Your task to perform on an android device: move a message to another label in the gmail app Image 0: 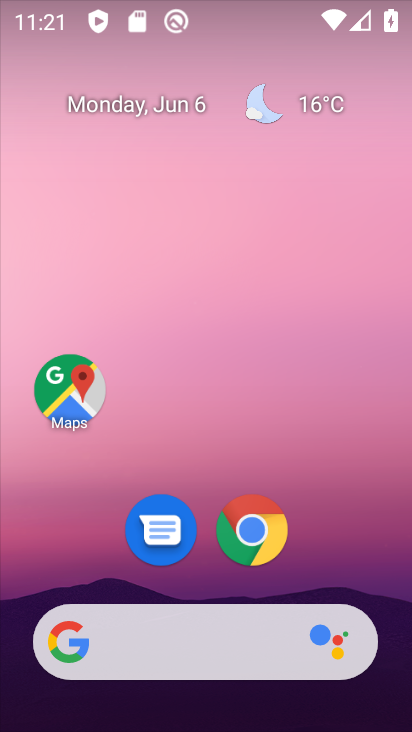
Step 0: drag from (318, 320) to (250, 49)
Your task to perform on an android device: move a message to another label in the gmail app Image 1: 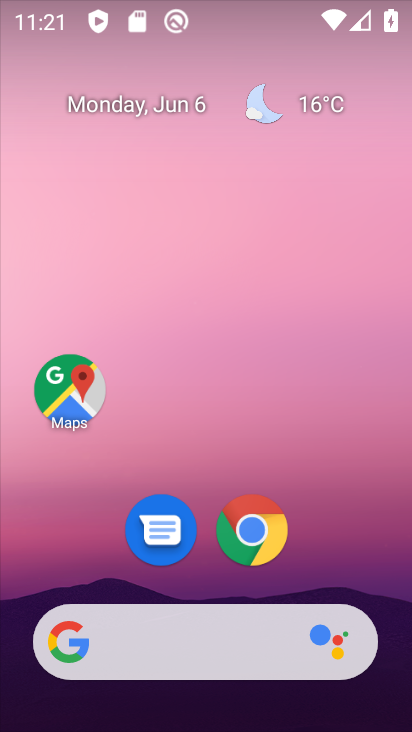
Step 1: drag from (316, 397) to (233, 16)
Your task to perform on an android device: move a message to another label in the gmail app Image 2: 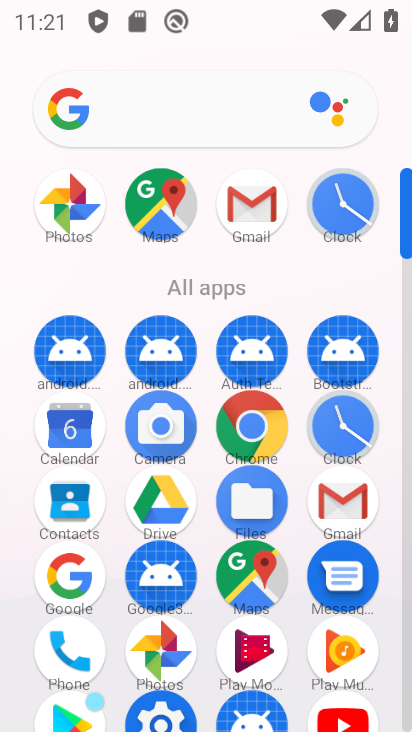
Step 2: click (262, 208)
Your task to perform on an android device: move a message to another label in the gmail app Image 3: 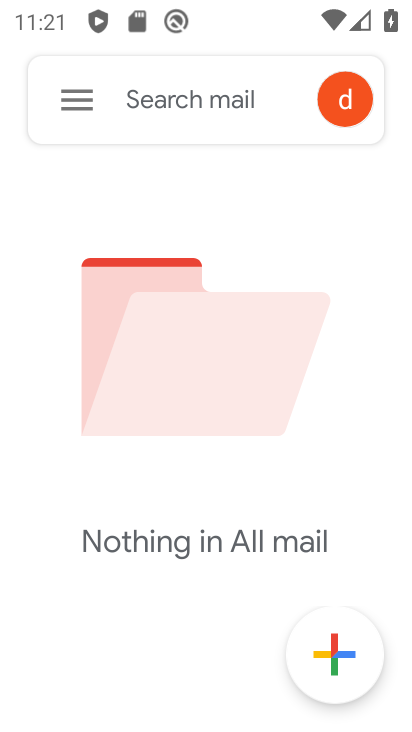
Step 3: click (78, 101)
Your task to perform on an android device: move a message to another label in the gmail app Image 4: 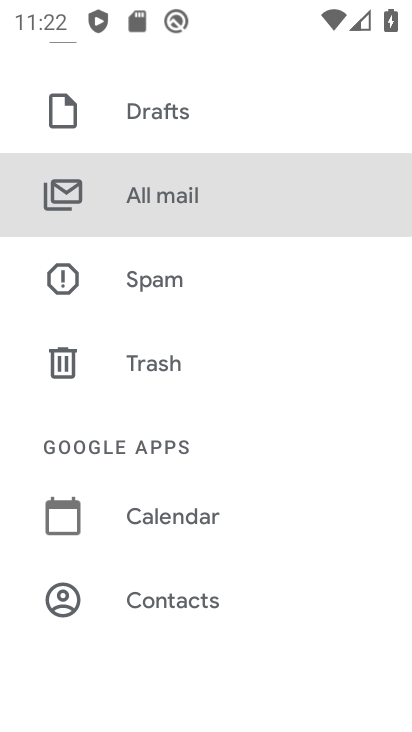
Step 4: drag from (236, 482) to (250, 155)
Your task to perform on an android device: move a message to another label in the gmail app Image 5: 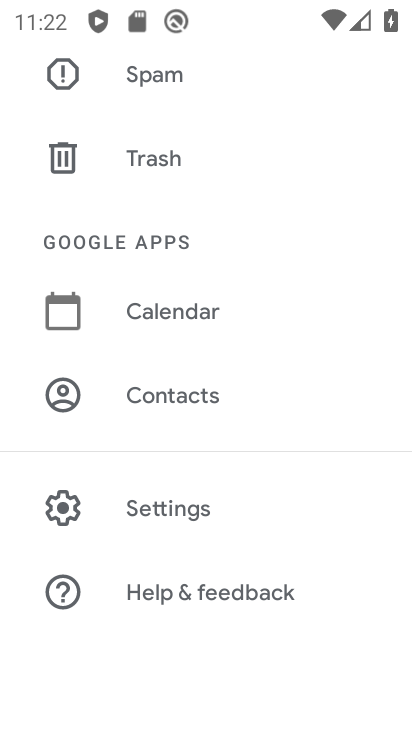
Step 5: drag from (220, 152) to (194, 679)
Your task to perform on an android device: move a message to another label in the gmail app Image 6: 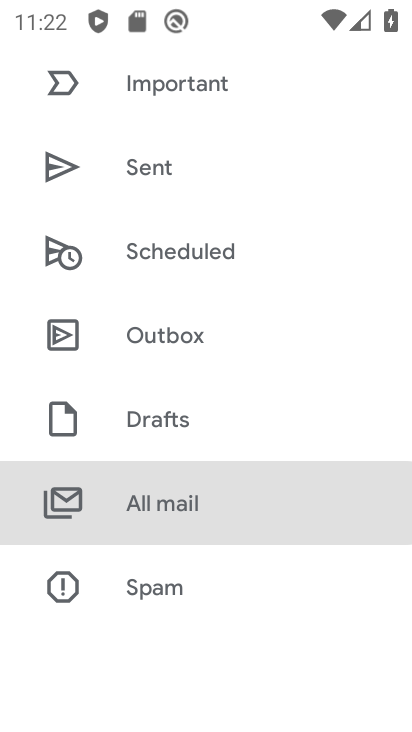
Step 6: click (184, 502)
Your task to perform on an android device: move a message to another label in the gmail app Image 7: 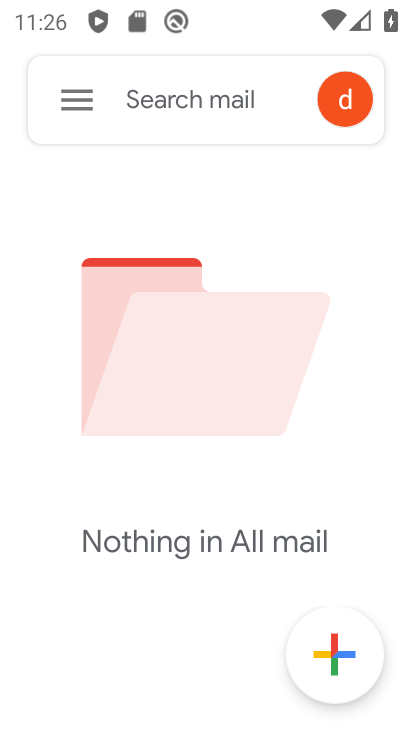
Step 7: task complete